Your task to perform on an android device: check storage Image 0: 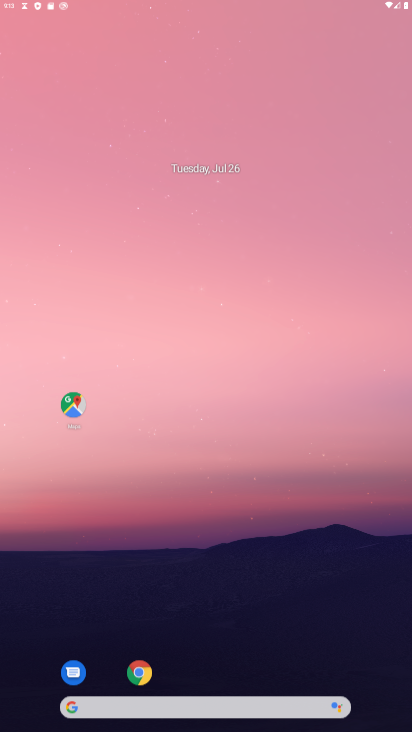
Step 0: drag from (266, 260) to (220, 431)
Your task to perform on an android device: check storage Image 1: 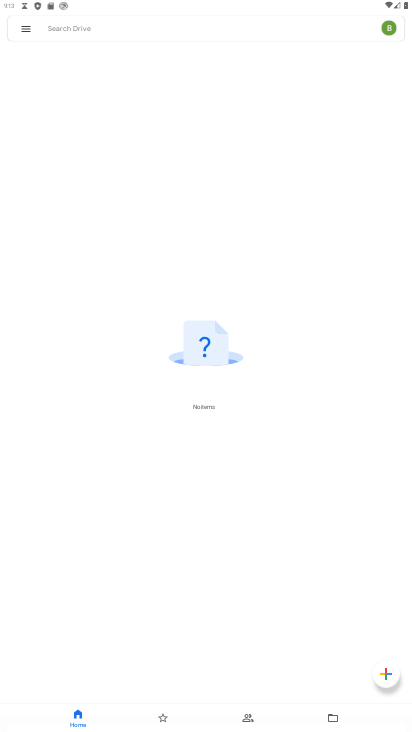
Step 1: press home button
Your task to perform on an android device: check storage Image 2: 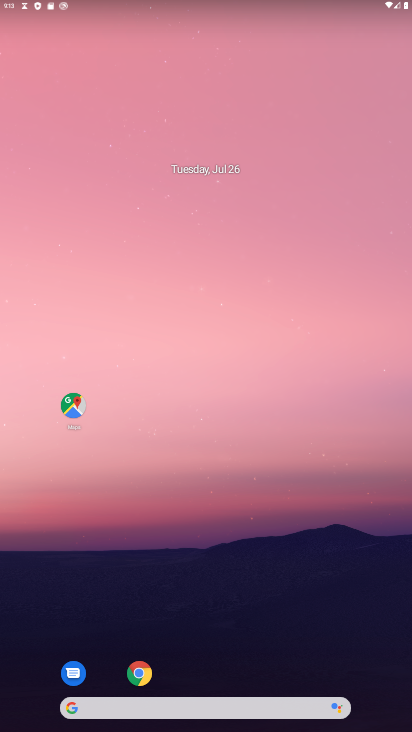
Step 2: drag from (173, 704) to (298, 35)
Your task to perform on an android device: check storage Image 3: 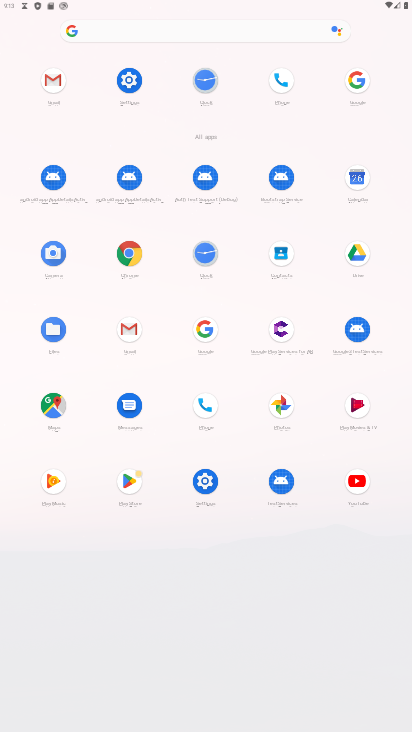
Step 3: click (130, 79)
Your task to perform on an android device: check storage Image 4: 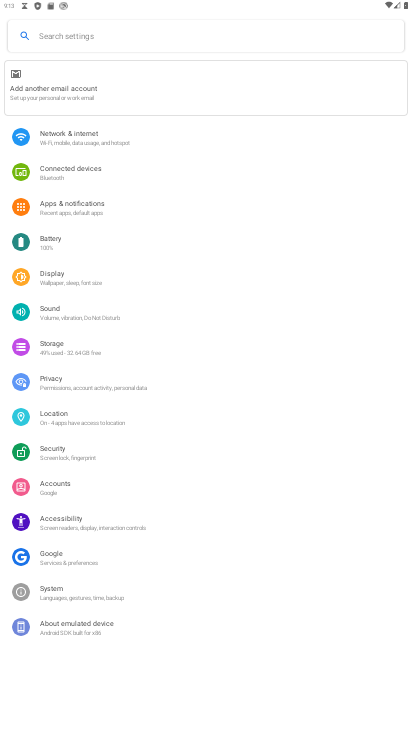
Step 4: click (88, 347)
Your task to perform on an android device: check storage Image 5: 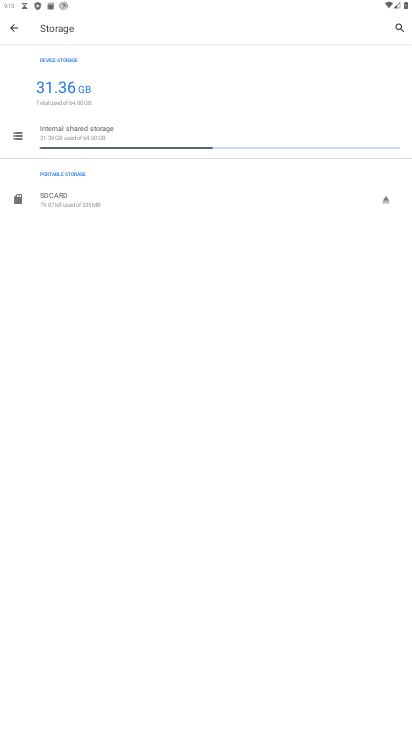
Step 5: task complete